Your task to perform on an android device: turn on bluetooth scan Image 0: 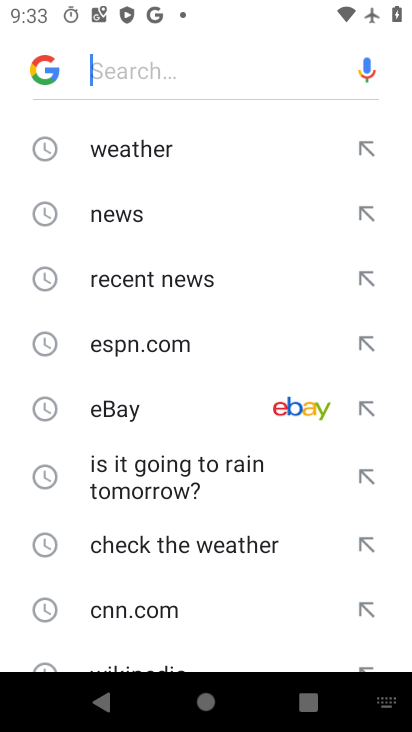
Step 0: press home button
Your task to perform on an android device: turn on bluetooth scan Image 1: 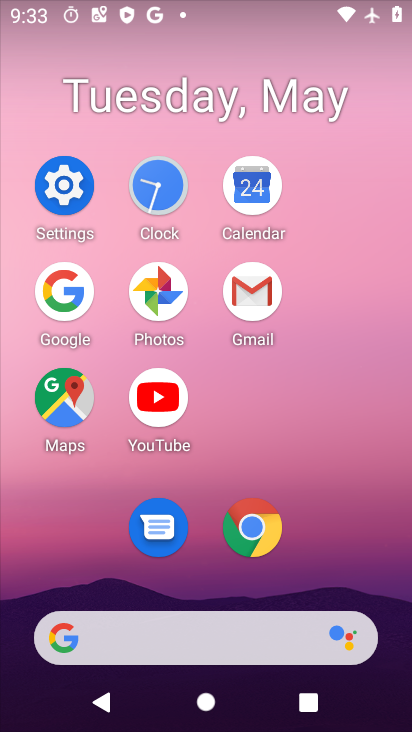
Step 1: click (44, 196)
Your task to perform on an android device: turn on bluetooth scan Image 2: 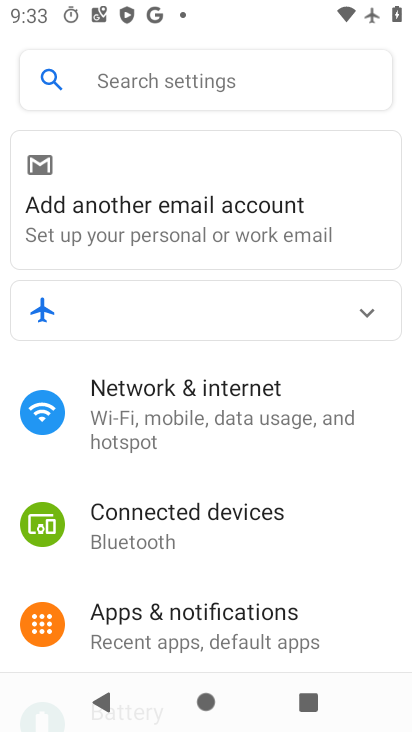
Step 2: drag from (248, 587) to (269, 188)
Your task to perform on an android device: turn on bluetooth scan Image 3: 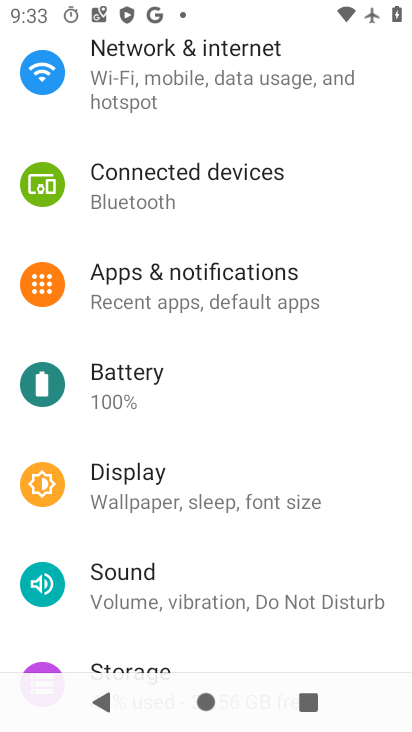
Step 3: drag from (207, 567) to (208, 251)
Your task to perform on an android device: turn on bluetooth scan Image 4: 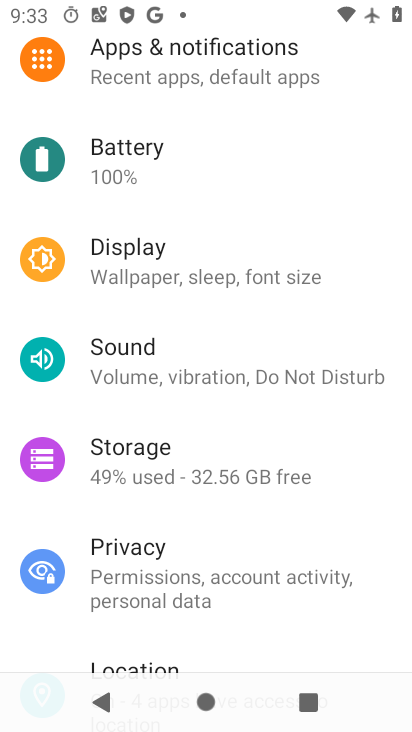
Step 4: drag from (198, 551) to (215, 194)
Your task to perform on an android device: turn on bluetooth scan Image 5: 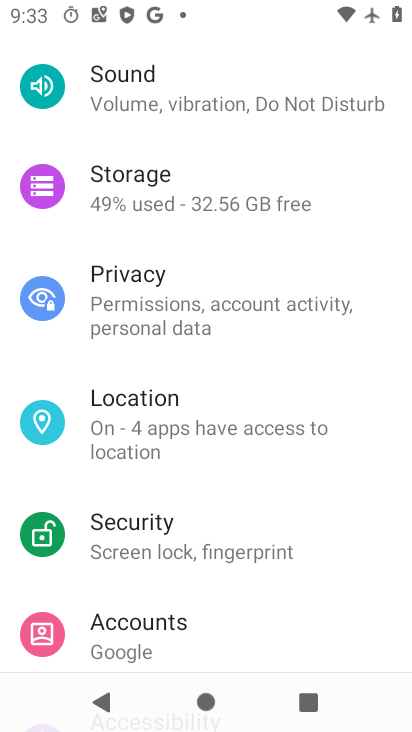
Step 5: click (187, 433)
Your task to perform on an android device: turn on bluetooth scan Image 6: 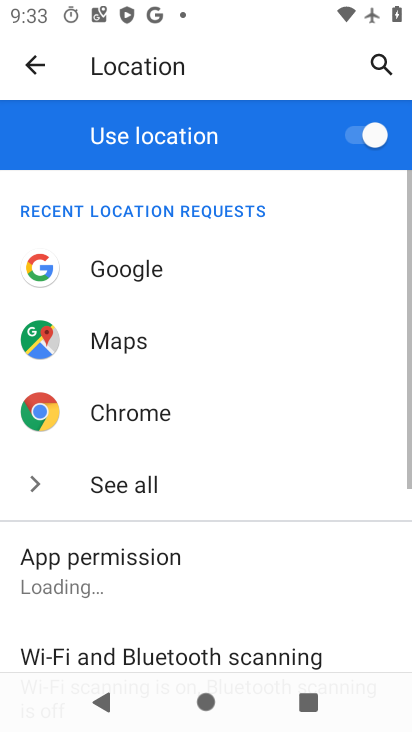
Step 6: drag from (192, 535) to (201, 186)
Your task to perform on an android device: turn on bluetooth scan Image 7: 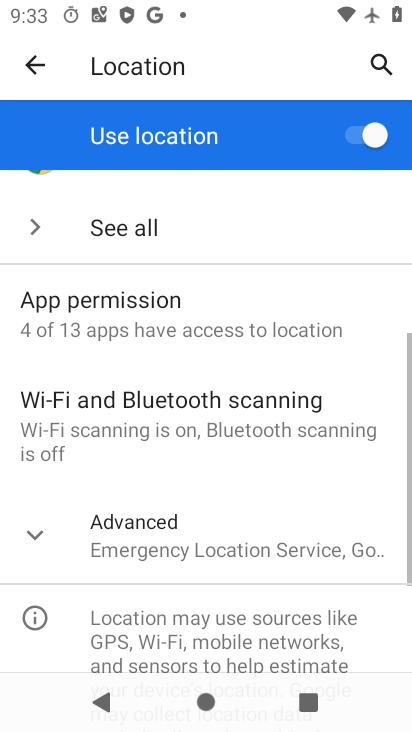
Step 7: click (191, 410)
Your task to perform on an android device: turn on bluetooth scan Image 8: 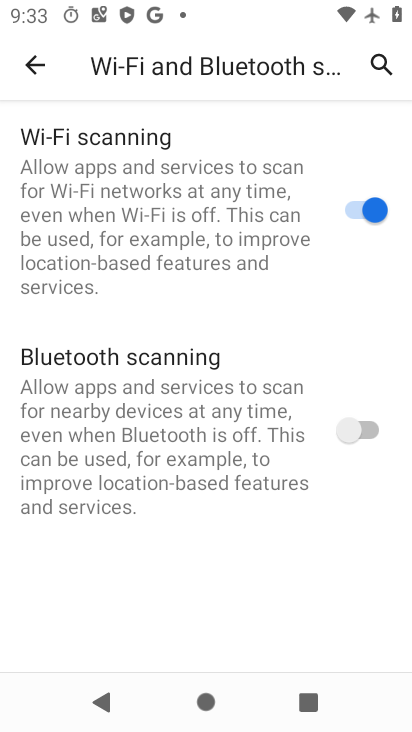
Step 8: click (353, 430)
Your task to perform on an android device: turn on bluetooth scan Image 9: 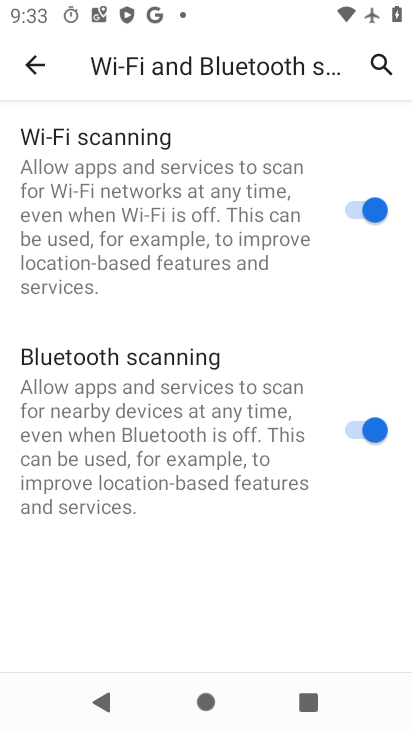
Step 9: task complete